Your task to perform on an android device: delete browsing data in the chrome app Image 0: 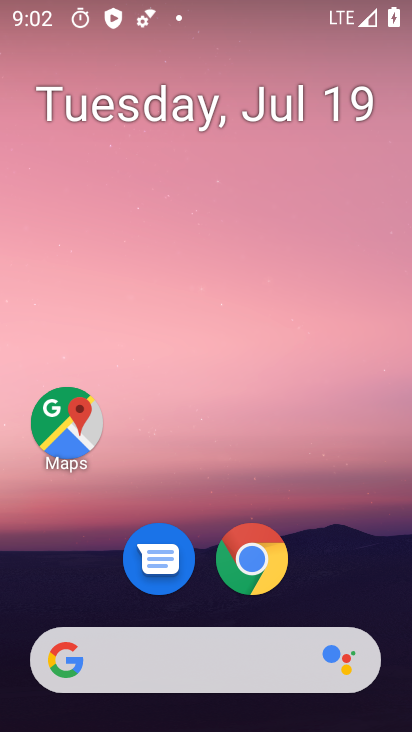
Step 0: drag from (367, 592) to (309, 212)
Your task to perform on an android device: delete browsing data in the chrome app Image 1: 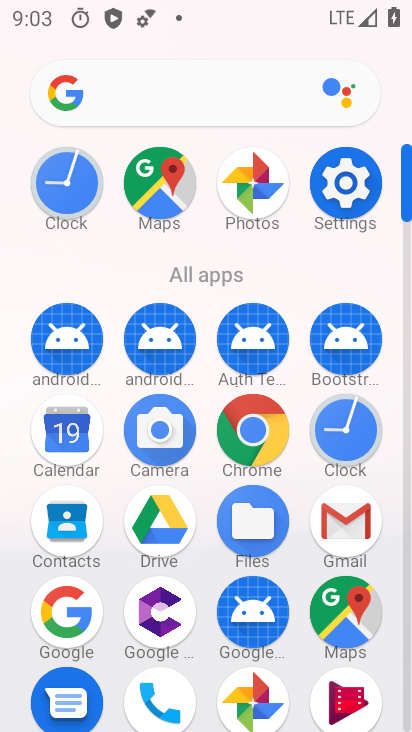
Step 1: click (277, 431)
Your task to perform on an android device: delete browsing data in the chrome app Image 2: 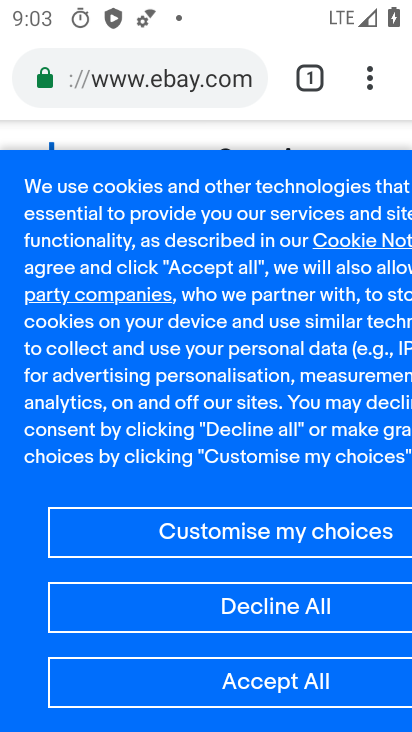
Step 2: click (374, 84)
Your task to perform on an android device: delete browsing data in the chrome app Image 3: 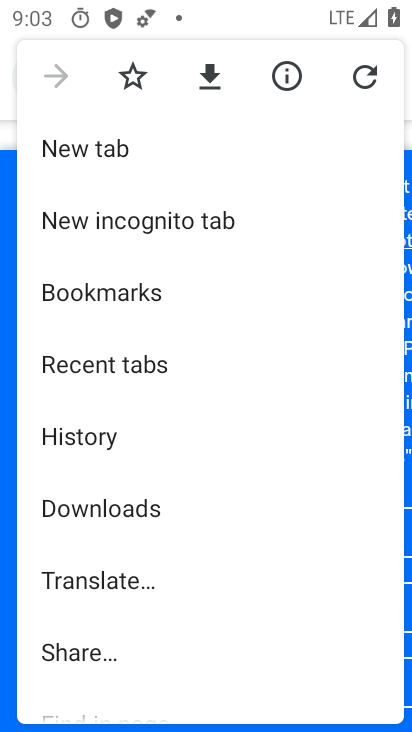
Step 3: click (74, 442)
Your task to perform on an android device: delete browsing data in the chrome app Image 4: 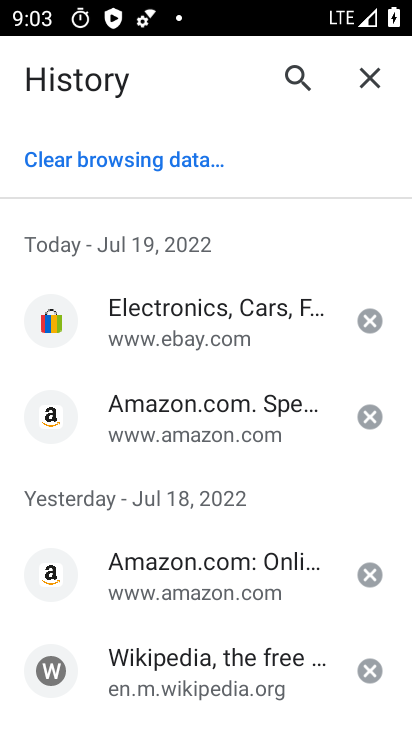
Step 4: click (149, 164)
Your task to perform on an android device: delete browsing data in the chrome app Image 5: 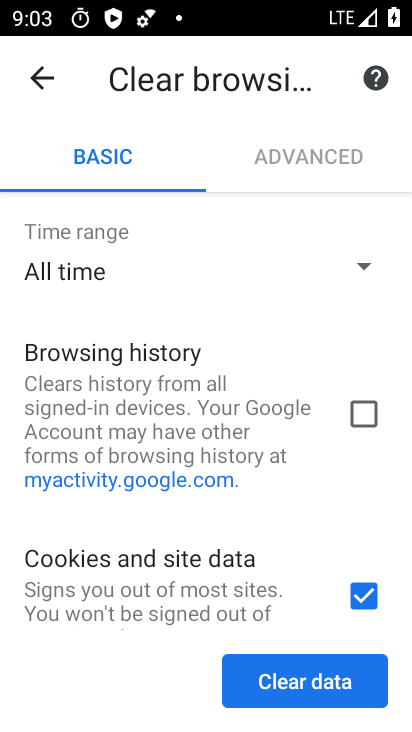
Step 5: click (364, 413)
Your task to perform on an android device: delete browsing data in the chrome app Image 6: 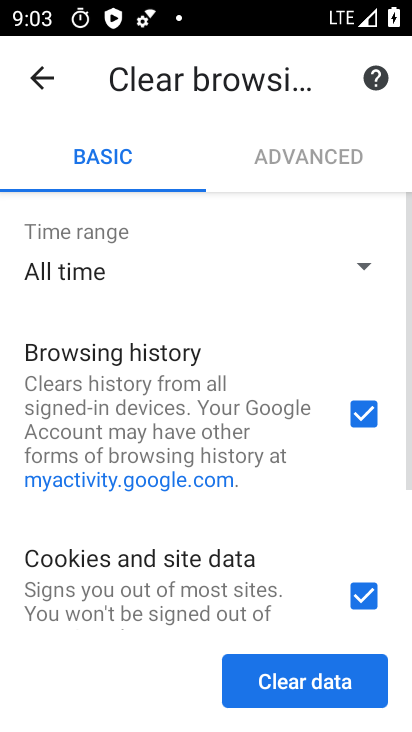
Step 6: click (343, 691)
Your task to perform on an android device: delete browsing data in the chrome app Image 7: 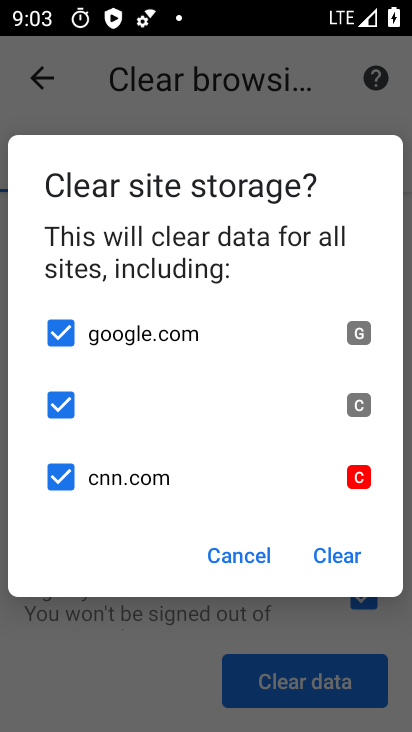
Step 7: click (345, 571)
Your task to perform on an android device: delete browsing data in the chrome app Image 8: 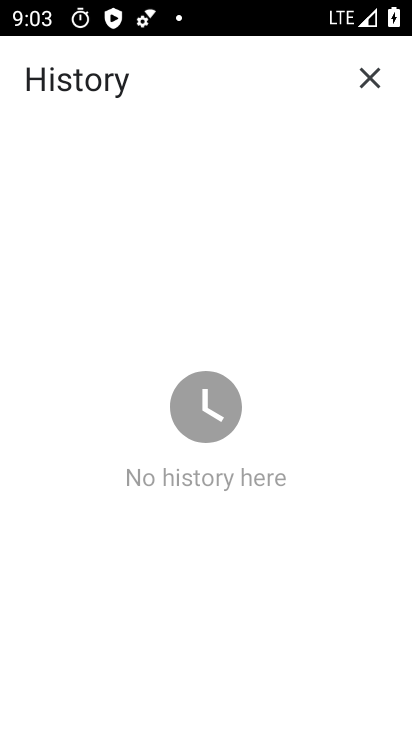
Step 8: task complete